Your task to perform on an android device: Turn off the flashlight Image 0: 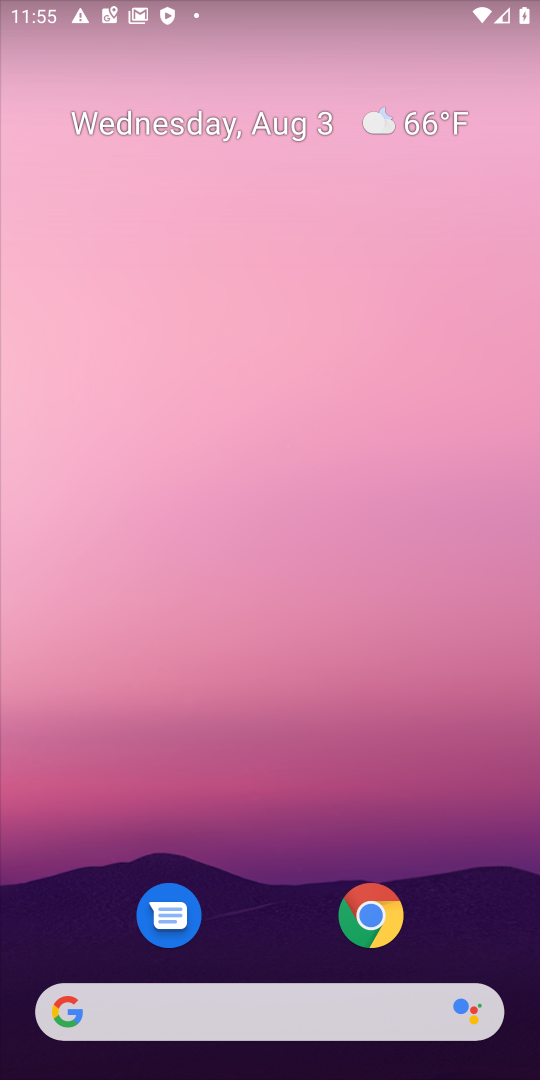
Step 0: drag from (257, 936) to (333, 7)
Your task to perform on an android device: Turn off the flashlight Image 1: 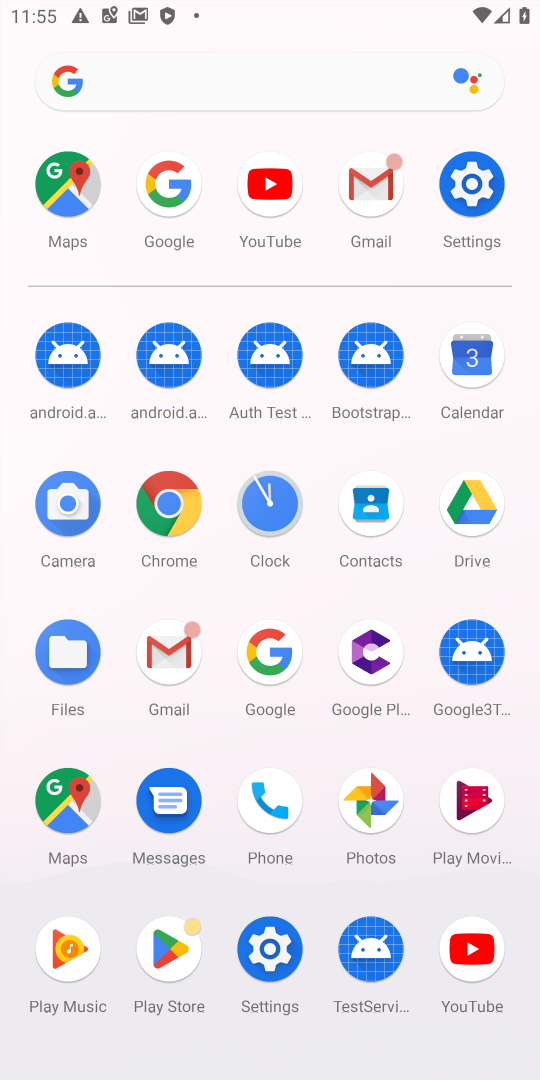
Step 1: click (473, 193)
Your task to perform on an android device: Turn off the flashlight Image 2: 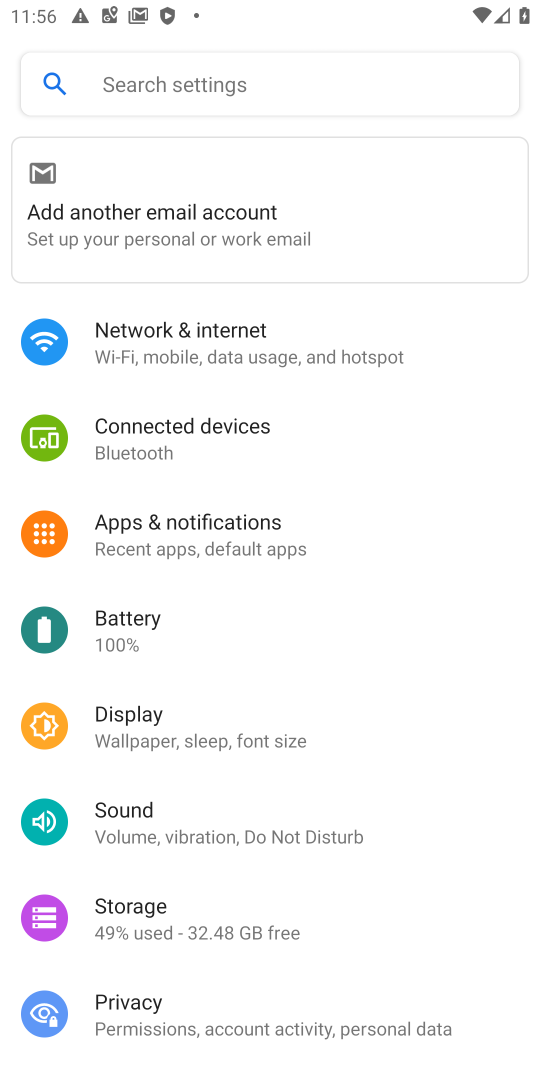
Step 2: task complete